Your task to perform on an android device: toggle javascript in the chrome app Image 0: 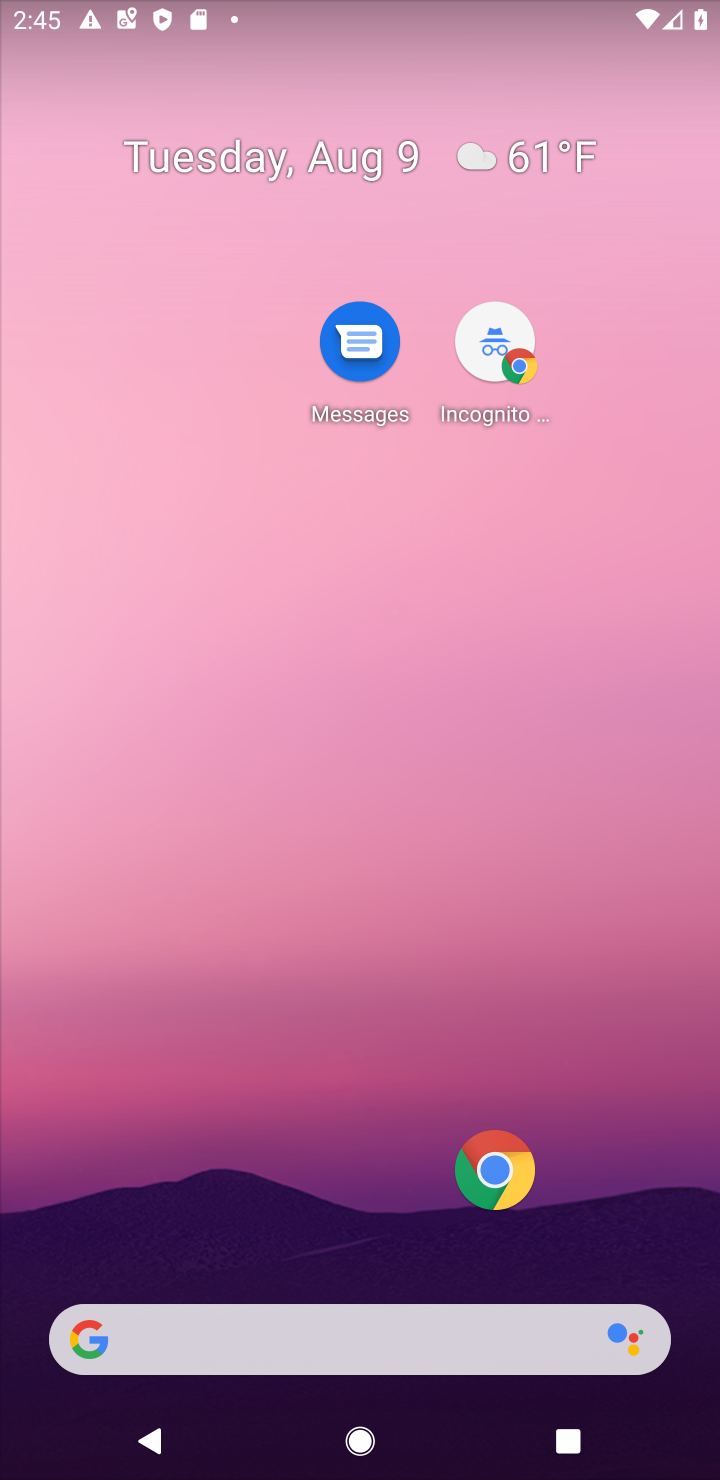
Step 0: click (486, 1155)
Your task to perform on an android device: toggle javascript in the chrome app Image 1: 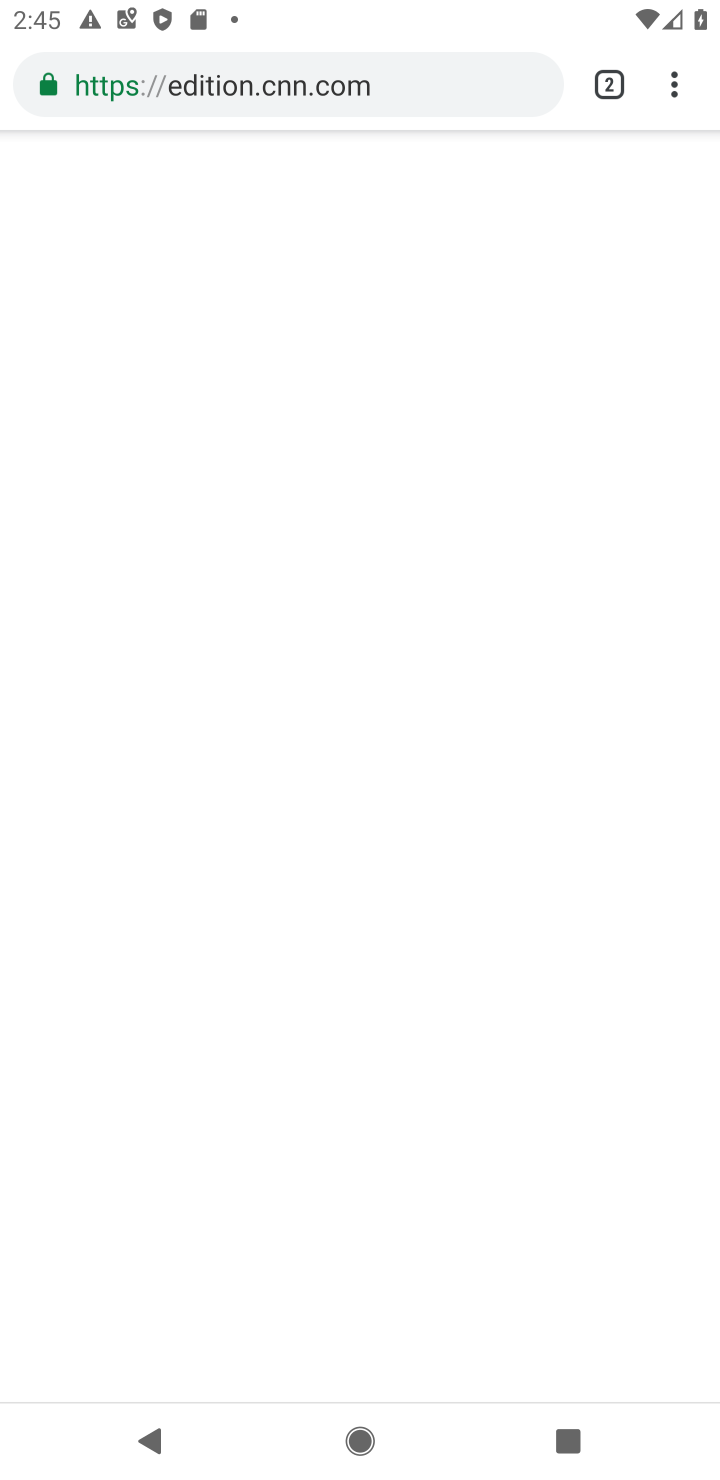
Step 1: press home button
Your task to perform on an android device: toggle javascript in the chrome app Image 2: 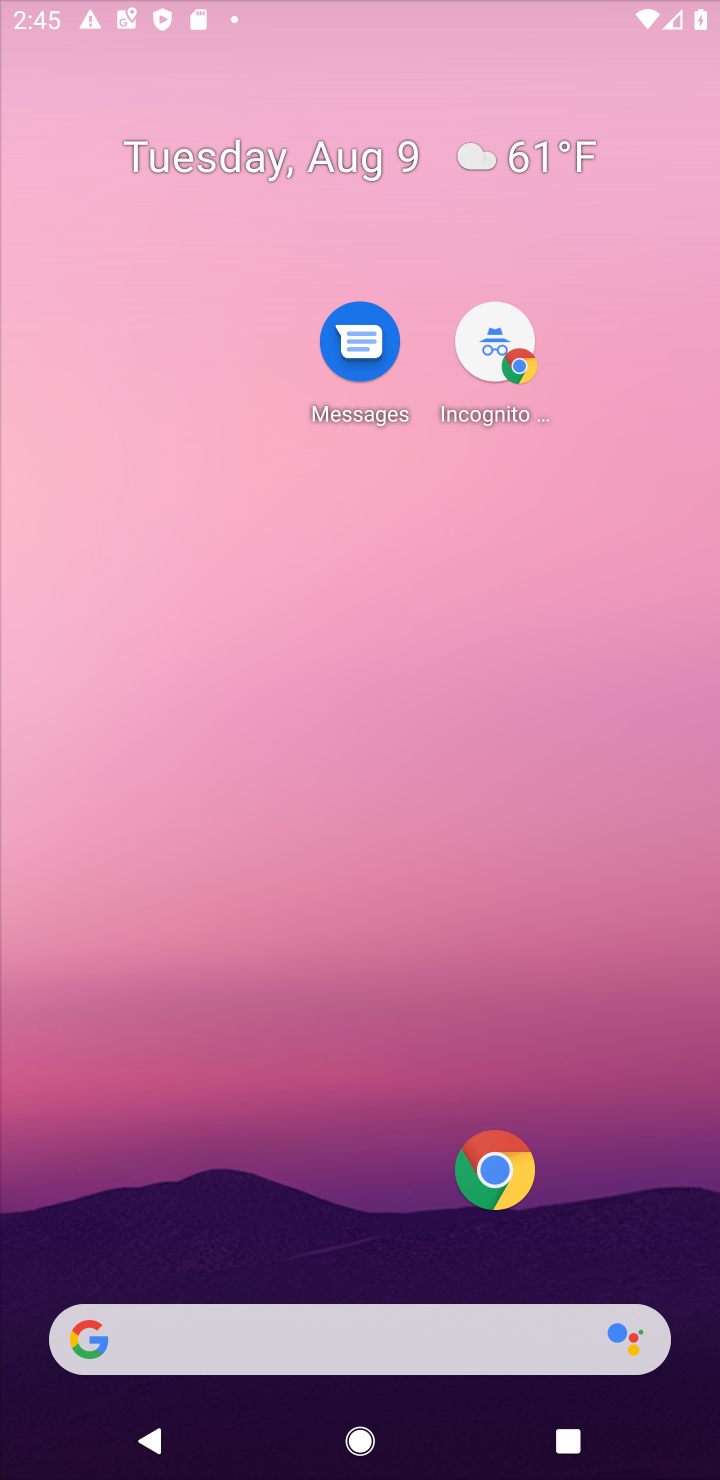
Step 2: click (454, 1182)
Your task to perform on an android device: toggle javascript in the chrome app Image 3: 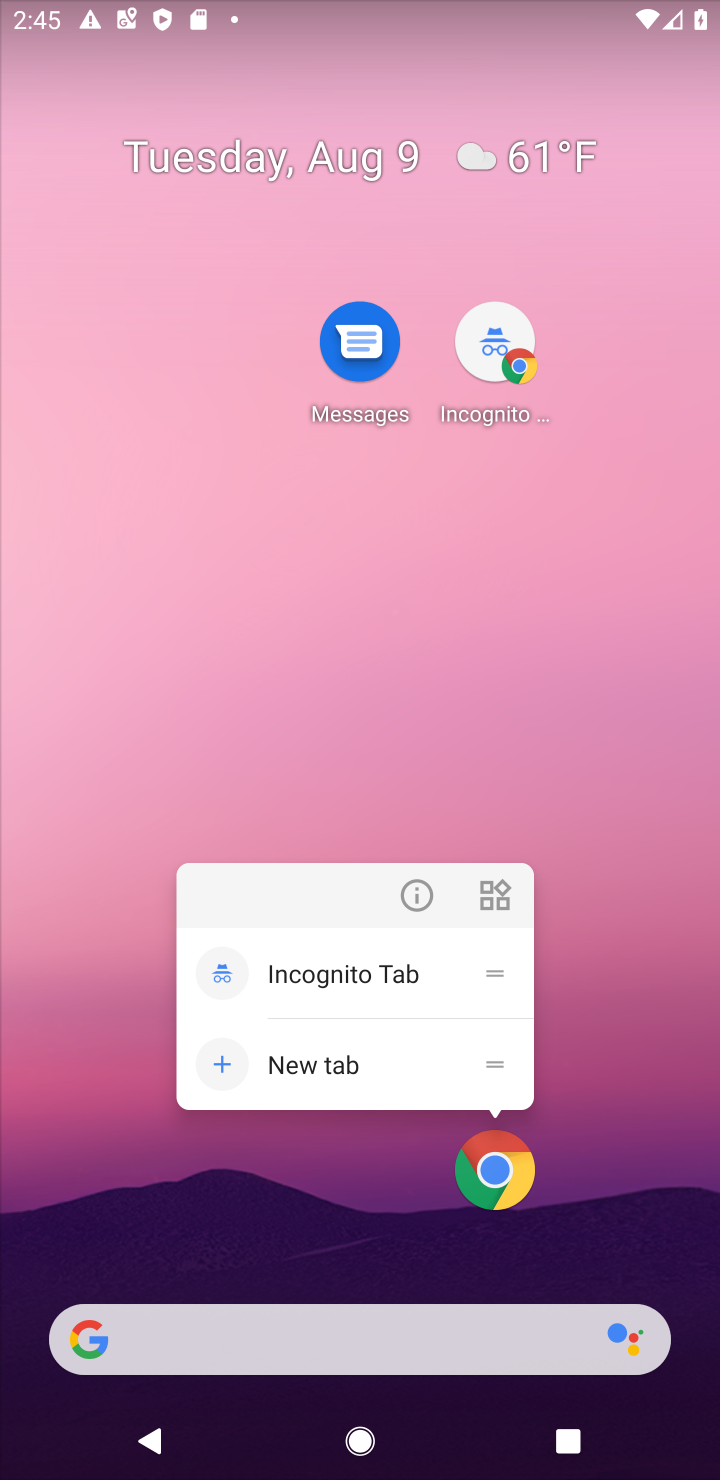
Step 3: click (482, 1151)
Your task to perform on an android device: toggle javascript in the chrome app Image 4: 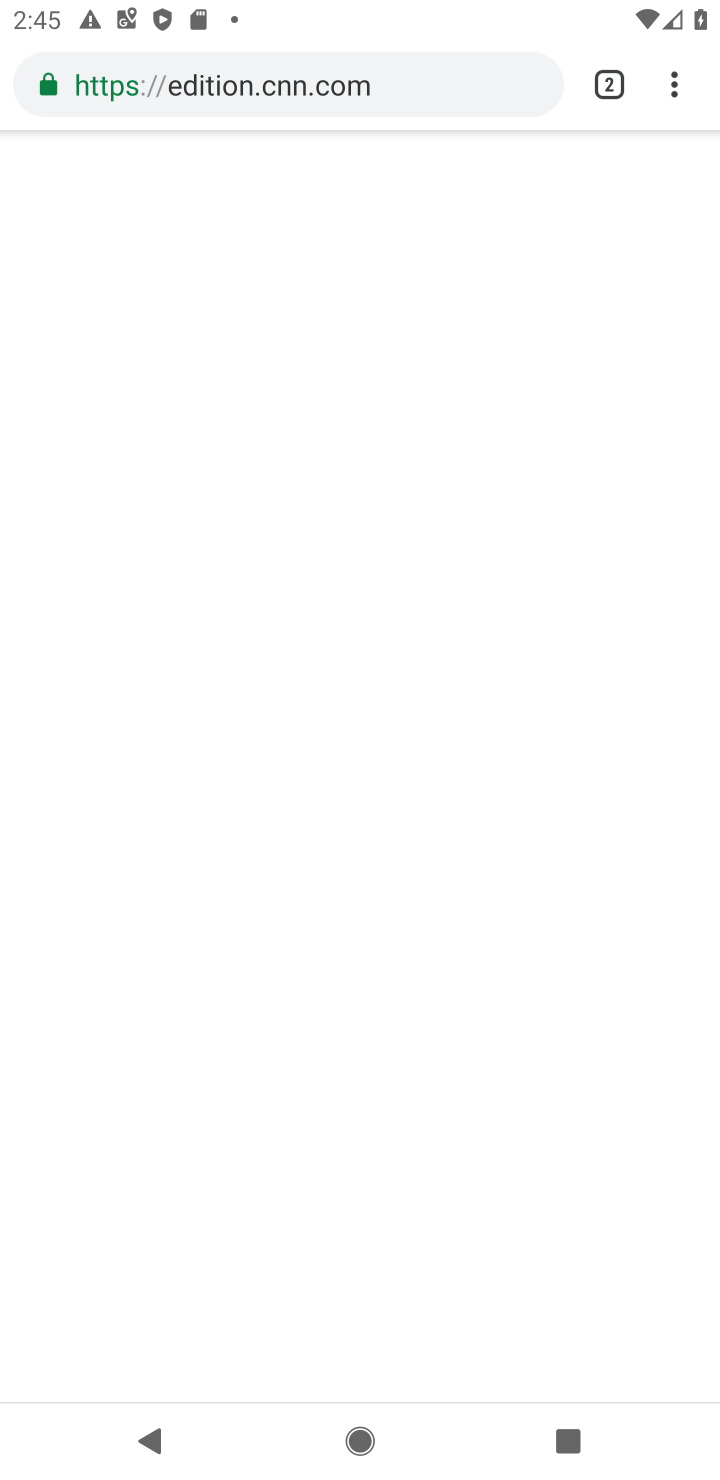
Step 4: click (658, 68)
Your task to perform on an android device: toggle javascript in the chrome app Image 5: 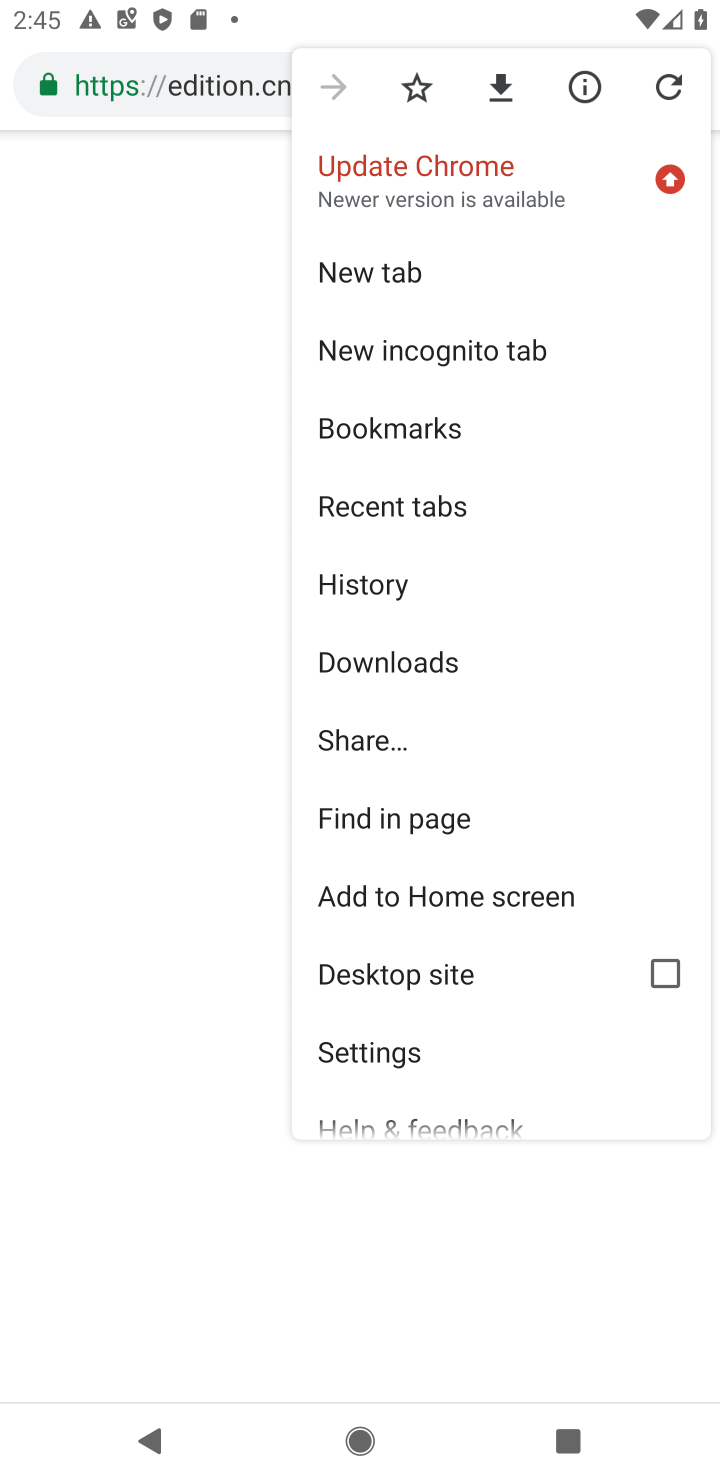
Step 5: click (376, 1063)
Your task to perform on an android device: toggle javascript in the chrome app Image 6: 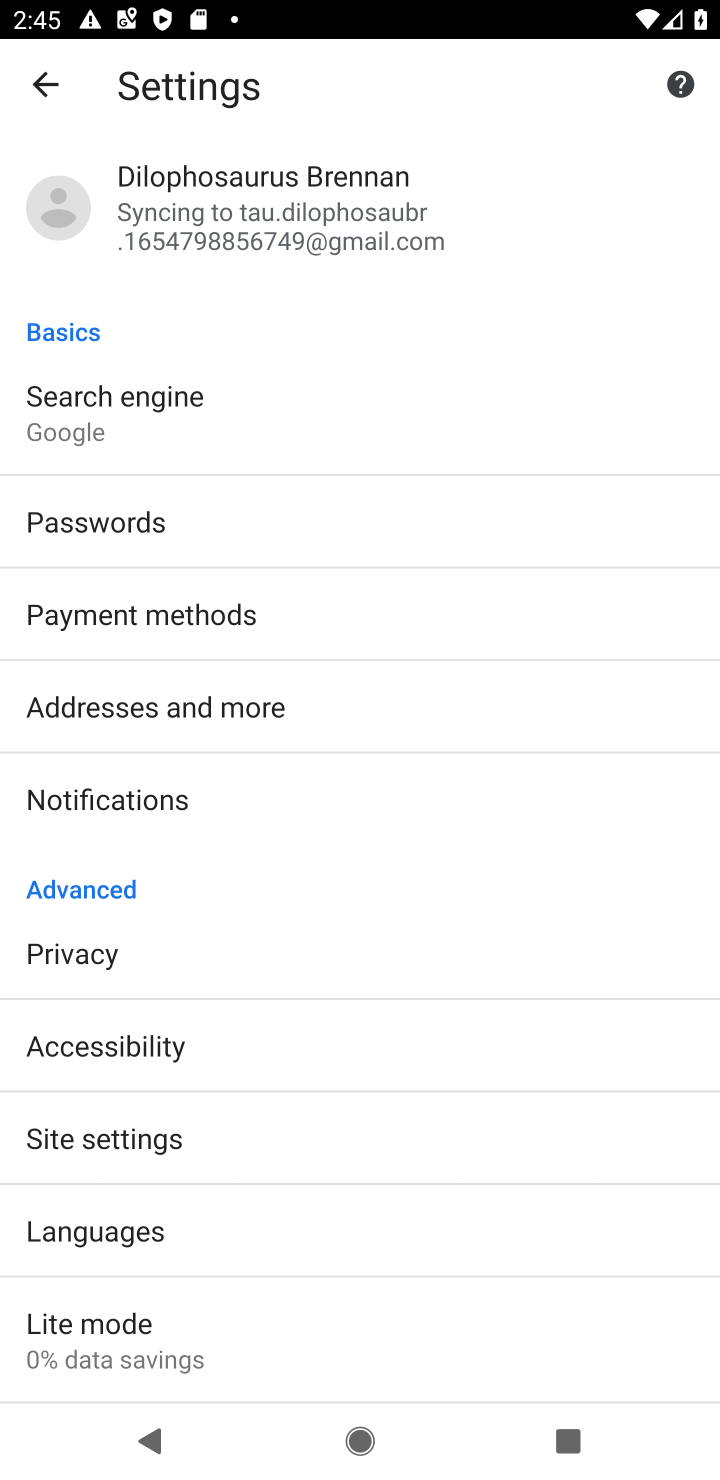
Step 6: click (121, 1137)
Your task to perform on an android device: toggle javascript in the chrome app Image 7: 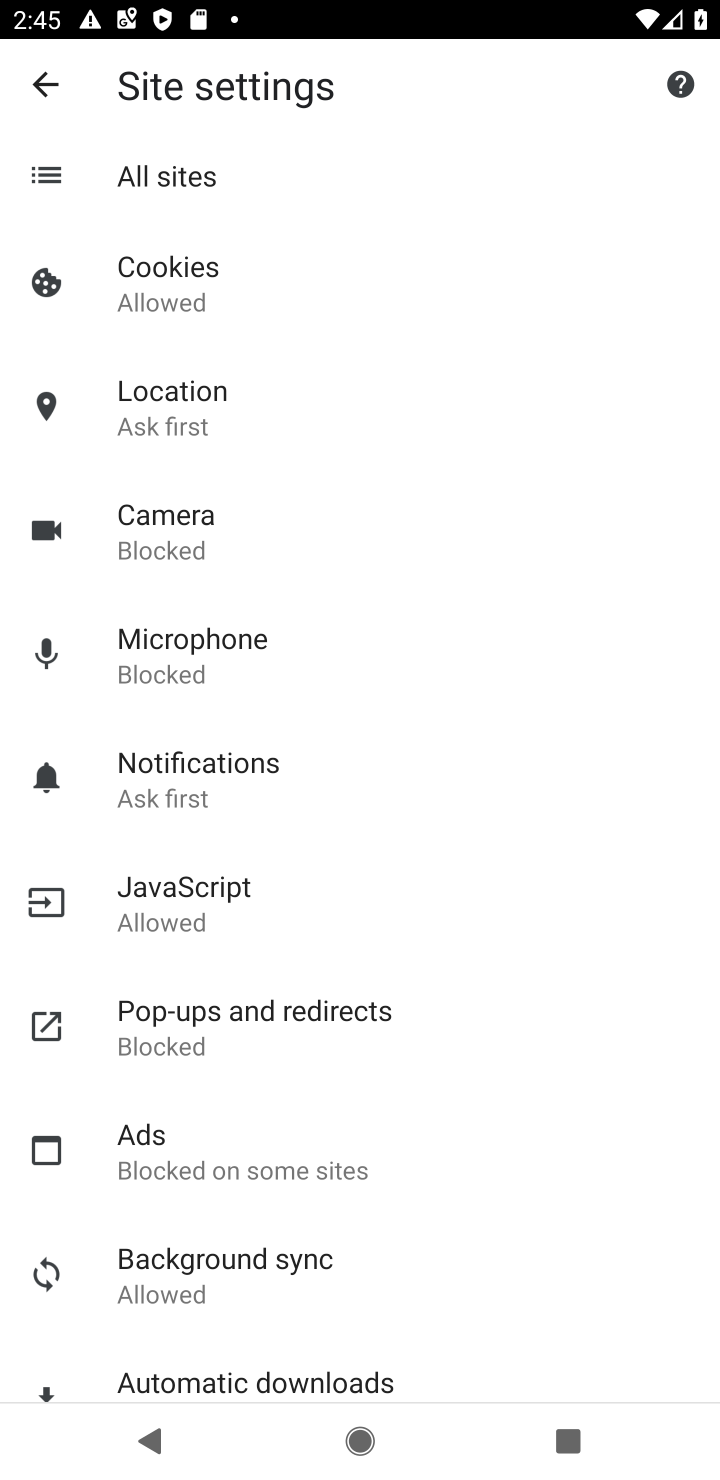
Step 7: click (181, 920)
Your task to perform on an android device: toggle javascript in the chrome app Image 8: 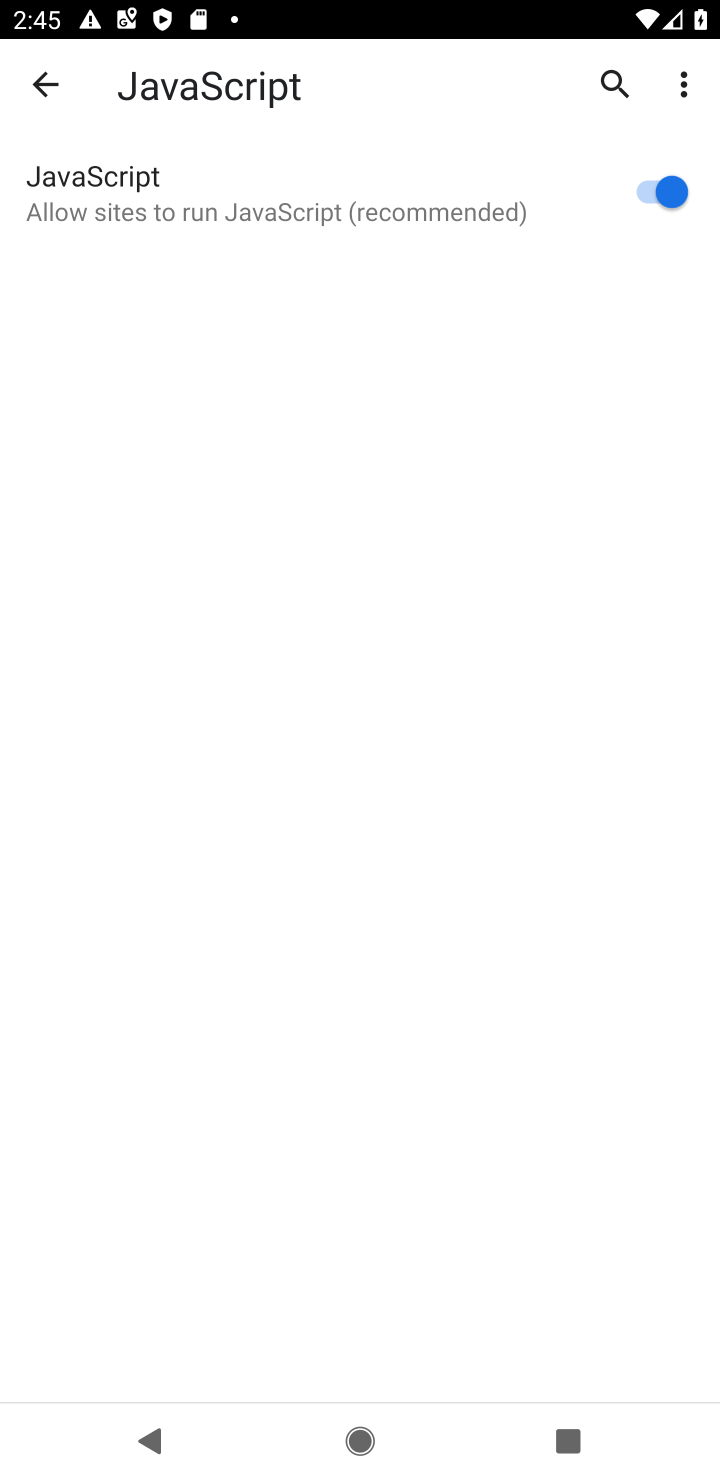
Step 8: click (604, 177)
Your task to perform on an android device: toggle javascript in the chrome app Image 9: 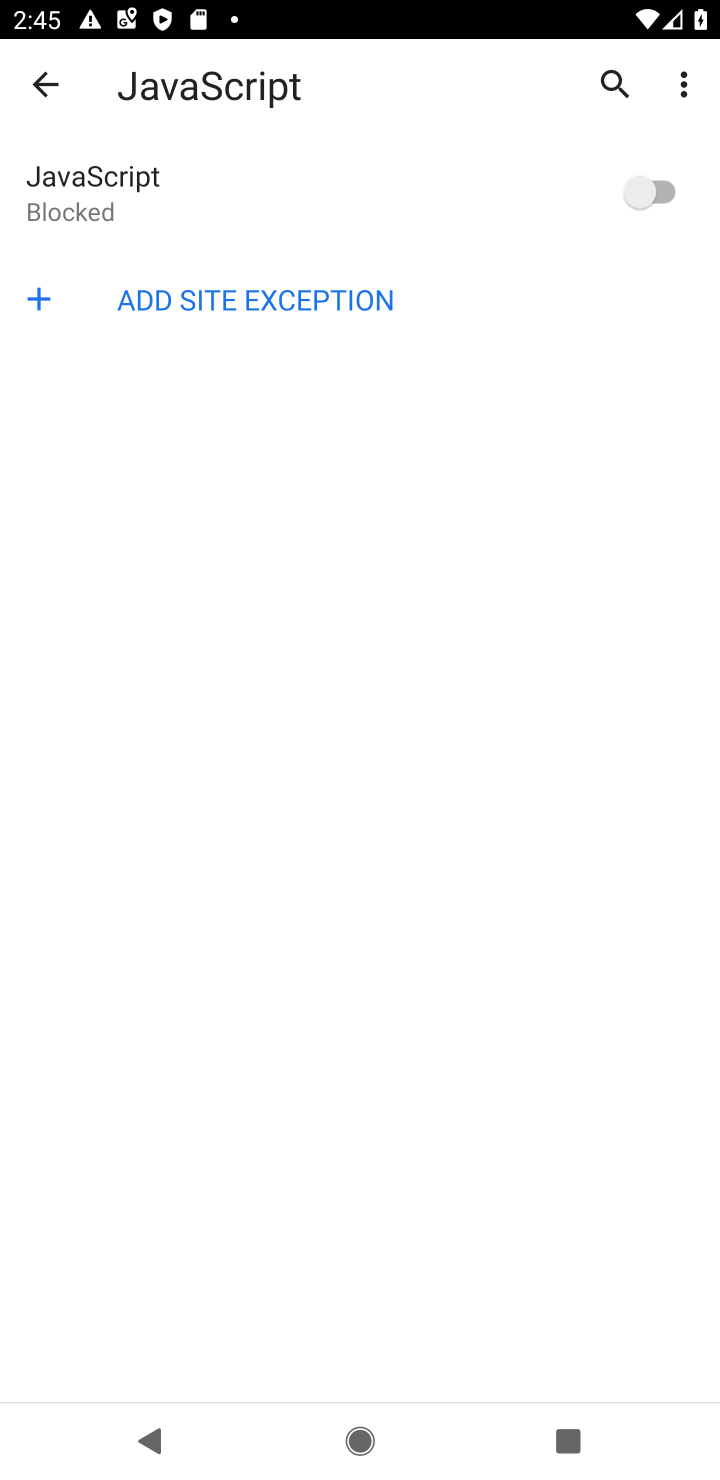
Step 9: task complete